Your task to perform on an android device: What's on my calendar tomorrow? Image 0: 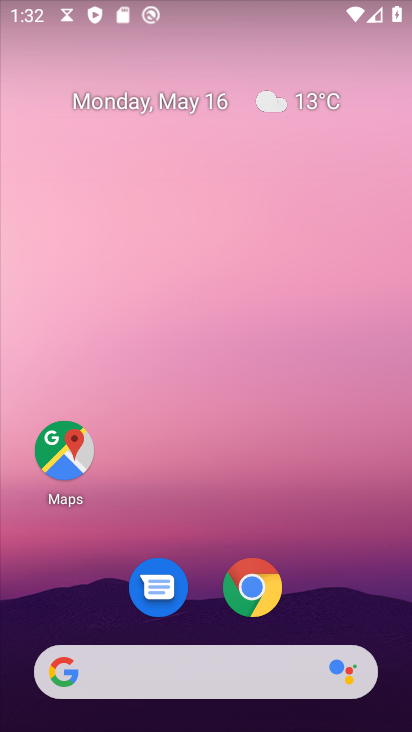
Step 0: drag from (207, 647) to (212, 251)
Your task to perform on an android device: What's on my calendar tomorrow? Image 1: 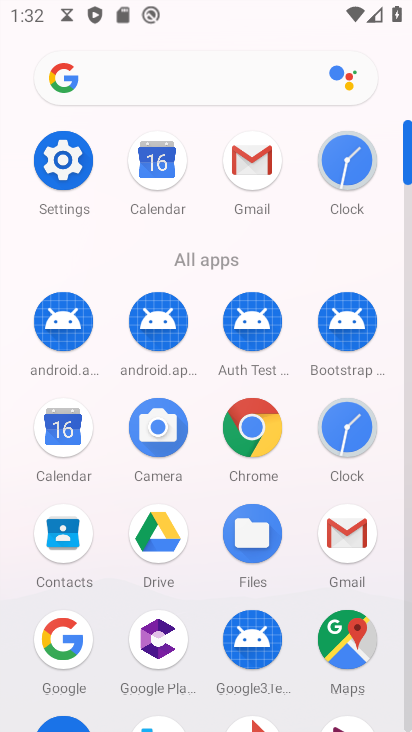
Step 1: click (62, 425)
Your task to perform on an android device: What's on my calendar tomorrow? Image 2: 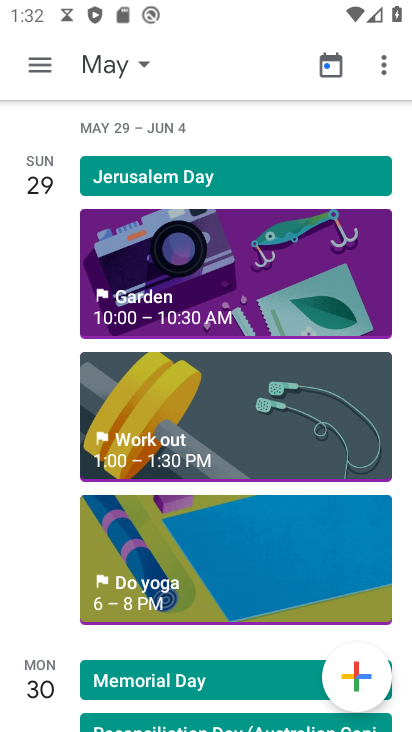
Step 2: click (122, 59)
Your task to perform on an android device: What's on my calendar tomorrow? Image 3: 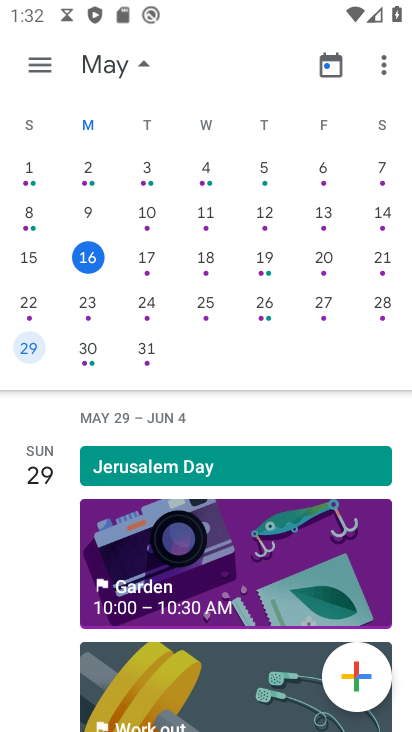
Step 3: click (142, 258)
Your task to perform on an android device: What's on my calendar tomorrow? Image 4: 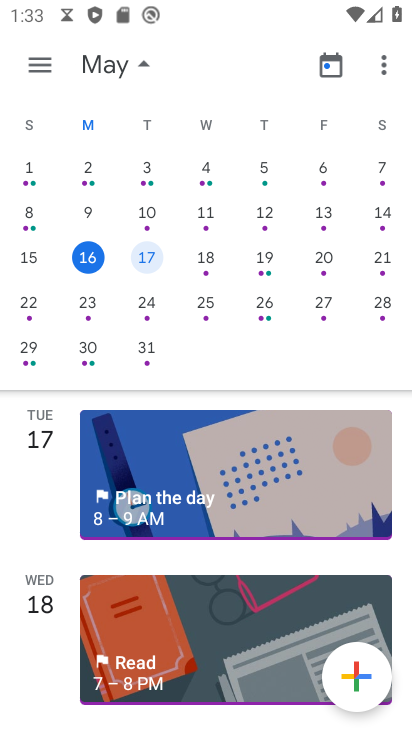
Step 4: drag from (192, 661) to (201, 392)
Your task to perform on an android device: What's on my calendar tomorrow? Image 5: 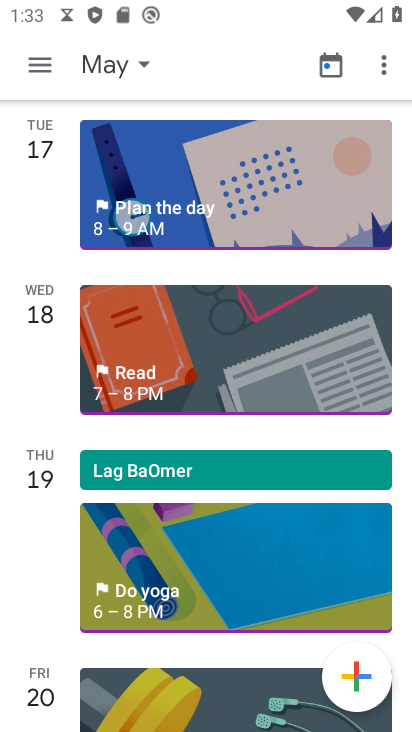
Step 5: click (191, 197)
Your task to perform on an android device: What's on my calendar tomorrow? Image 6: 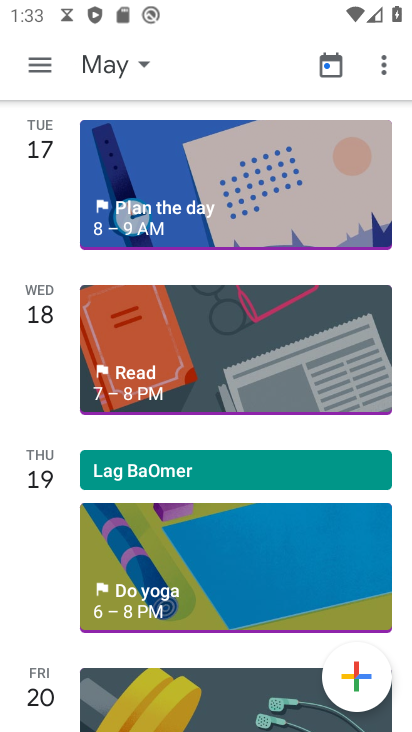
Step 6: click (140, 215)
Your task to perform on an android device: What's on my calendar tomorrow? Image 7: 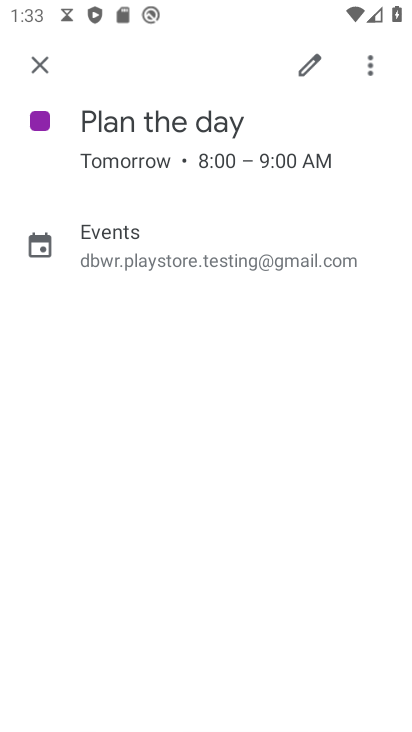
Step 7: task complete